Your task to perform on an android device: Open Android settings Image 0: 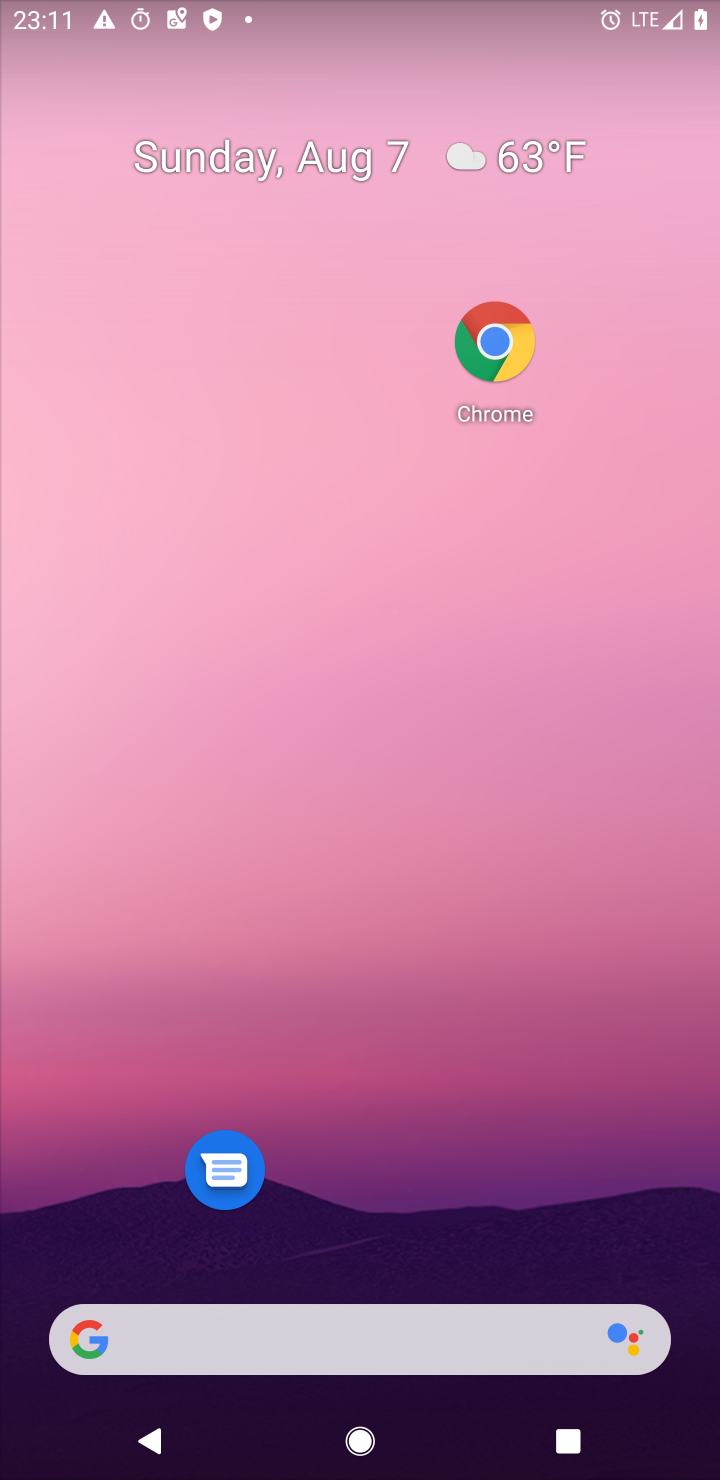
Step 0: drag from (511, 1345) to (442, 12)
Your task to perform on an android device: Open Android settings Image 1: 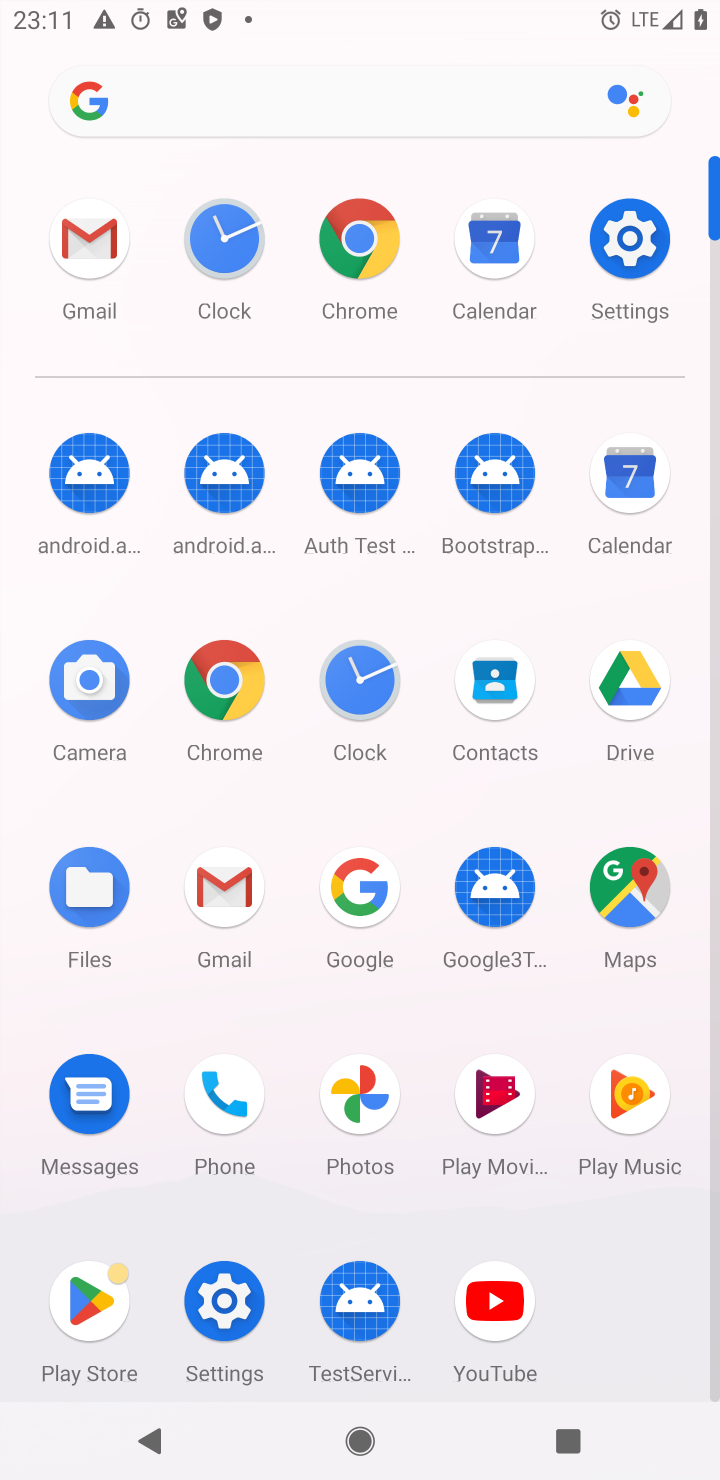
Step 1: click (640, 267)
Your task to perform on an android device: Open Android settings Image 2: 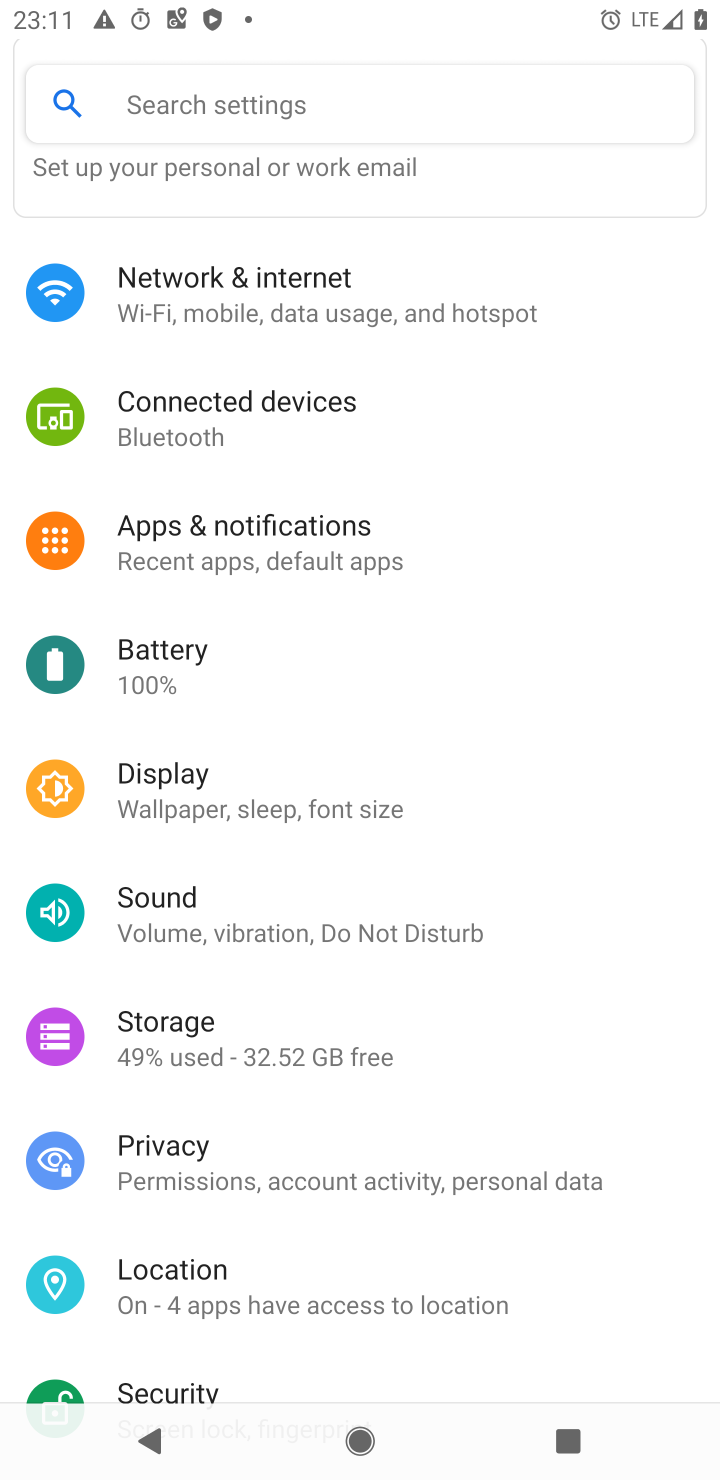
Step 2: drag from (675, 1314) to (713, 1094)
Your task to perform on an android device: Open Android settings Image 3: 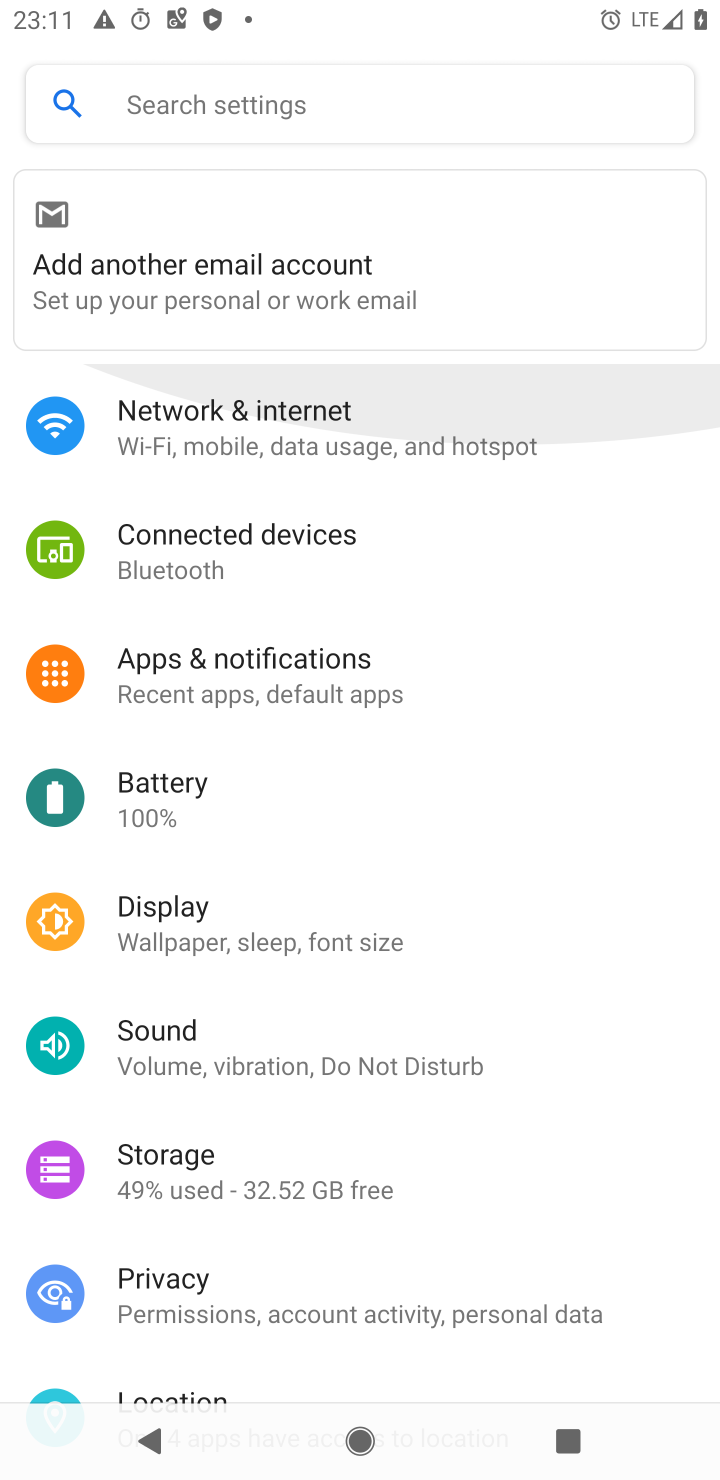
Step 3: click (386, 1347)
Your task to perform on an android device: Open Android settings Image 4: 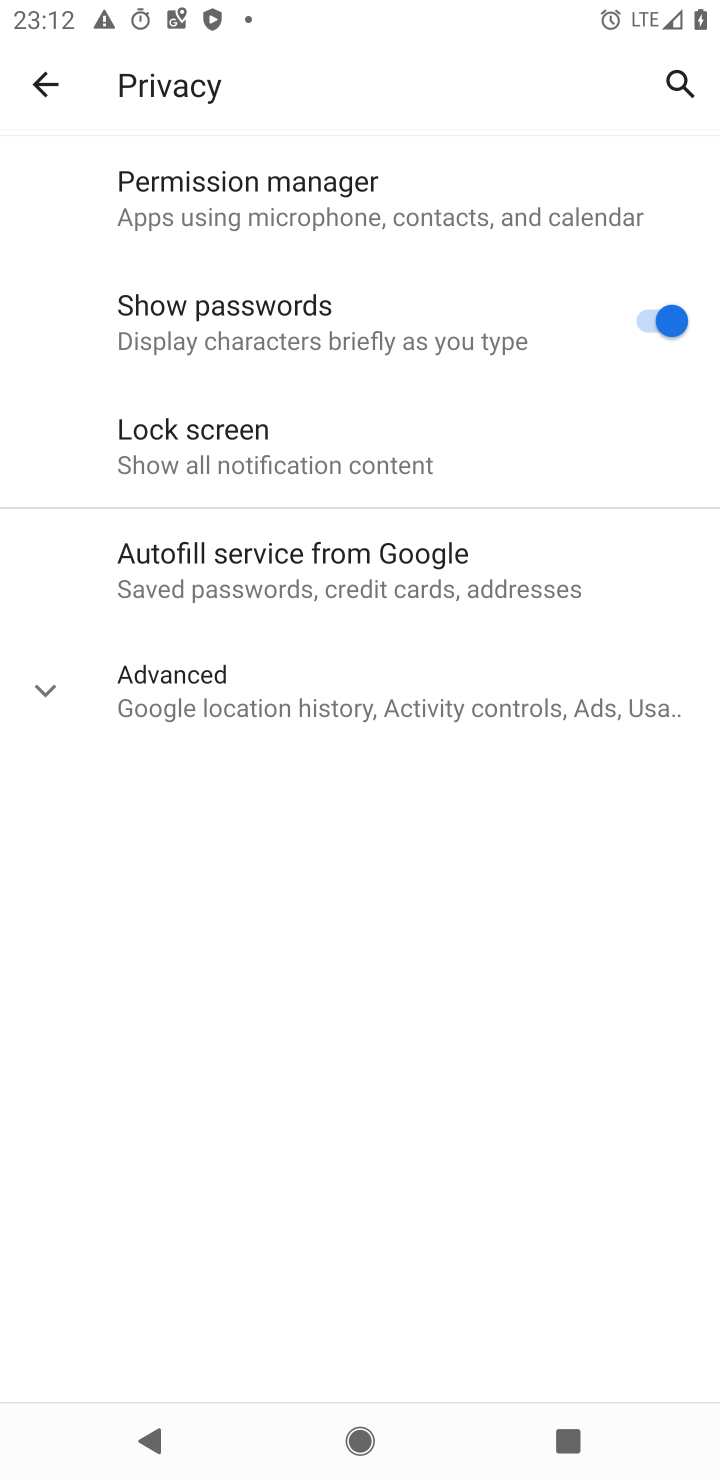
Step 4: press back button
Your task to perform on an android device: Open Android settings Image 5: 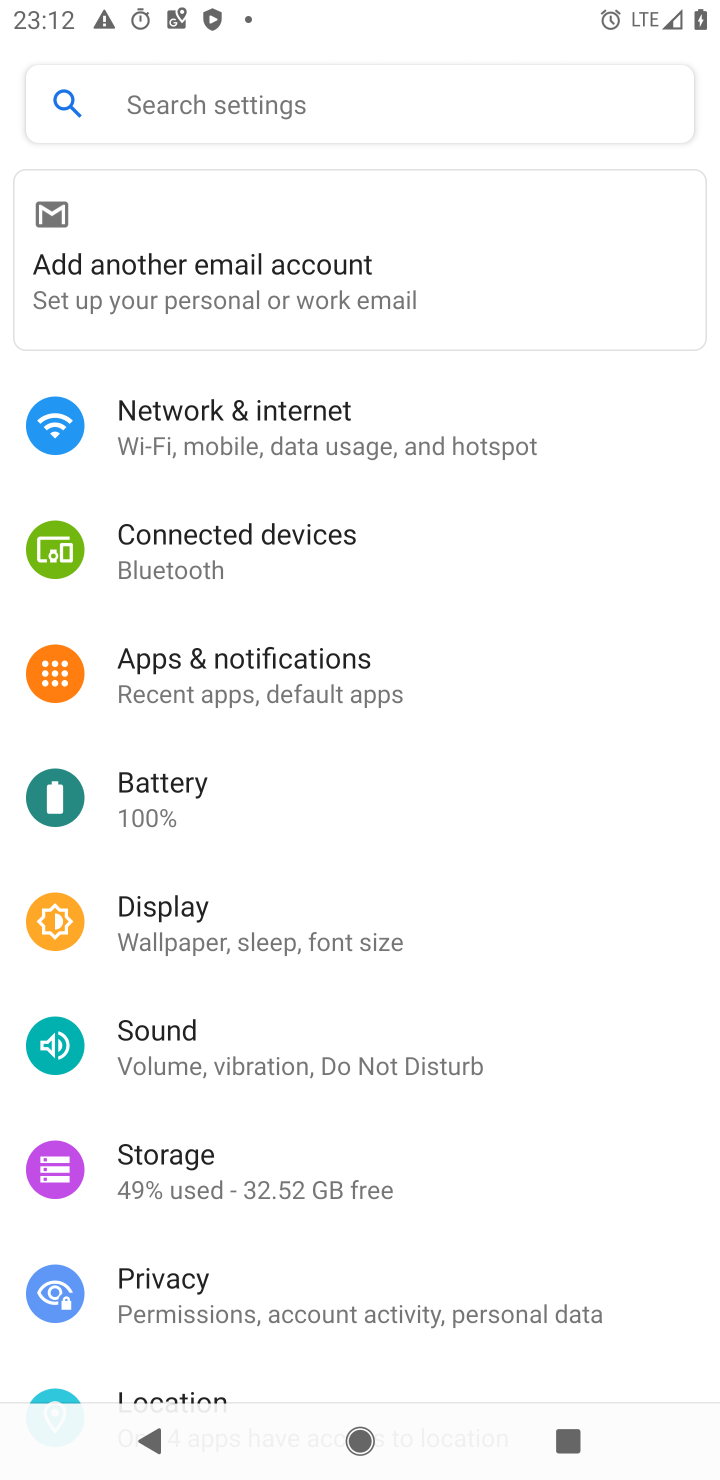
Step 5: drag from (649, 1335) to (617, 367)
Your task to perform on an android device: Open Android settings Image 6: 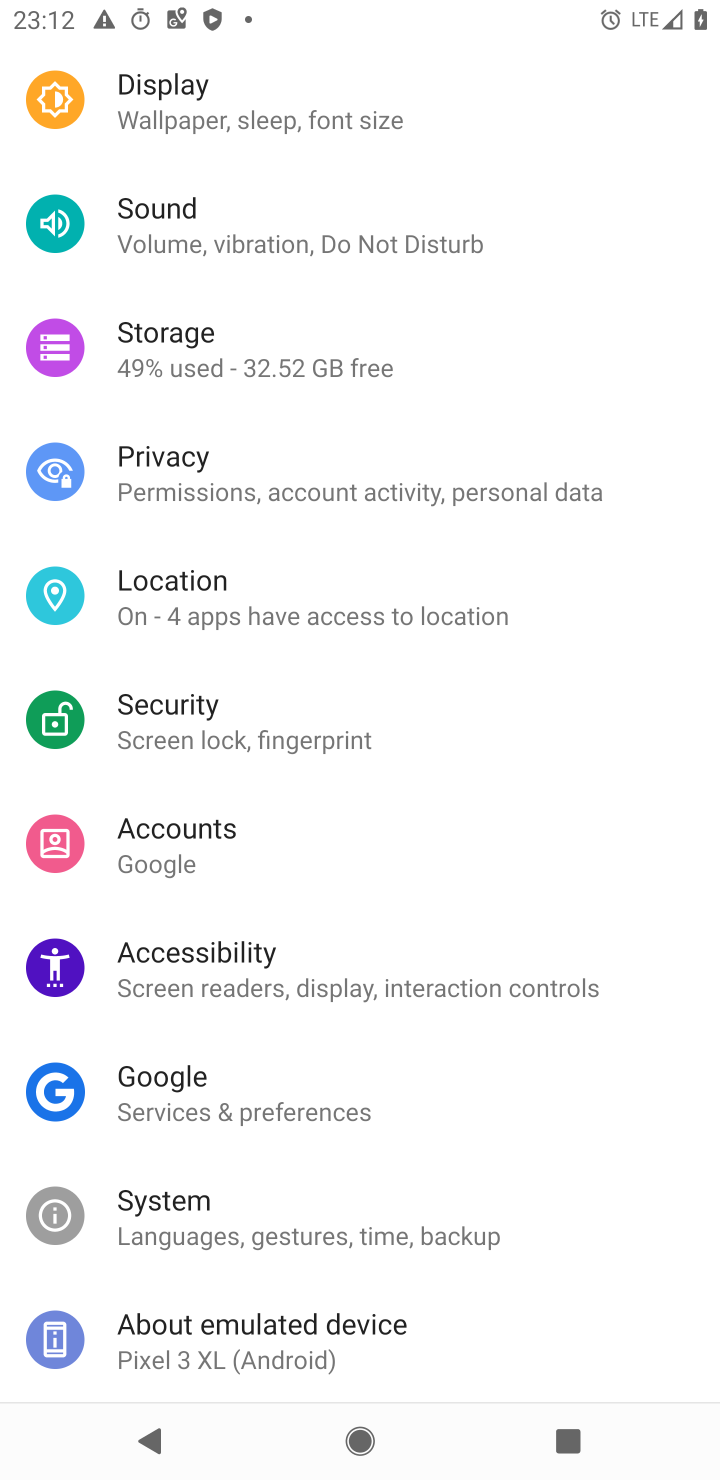
Step 6: click (426, 1341)
Your task to perform on an android device: Open Android settings Image 7: 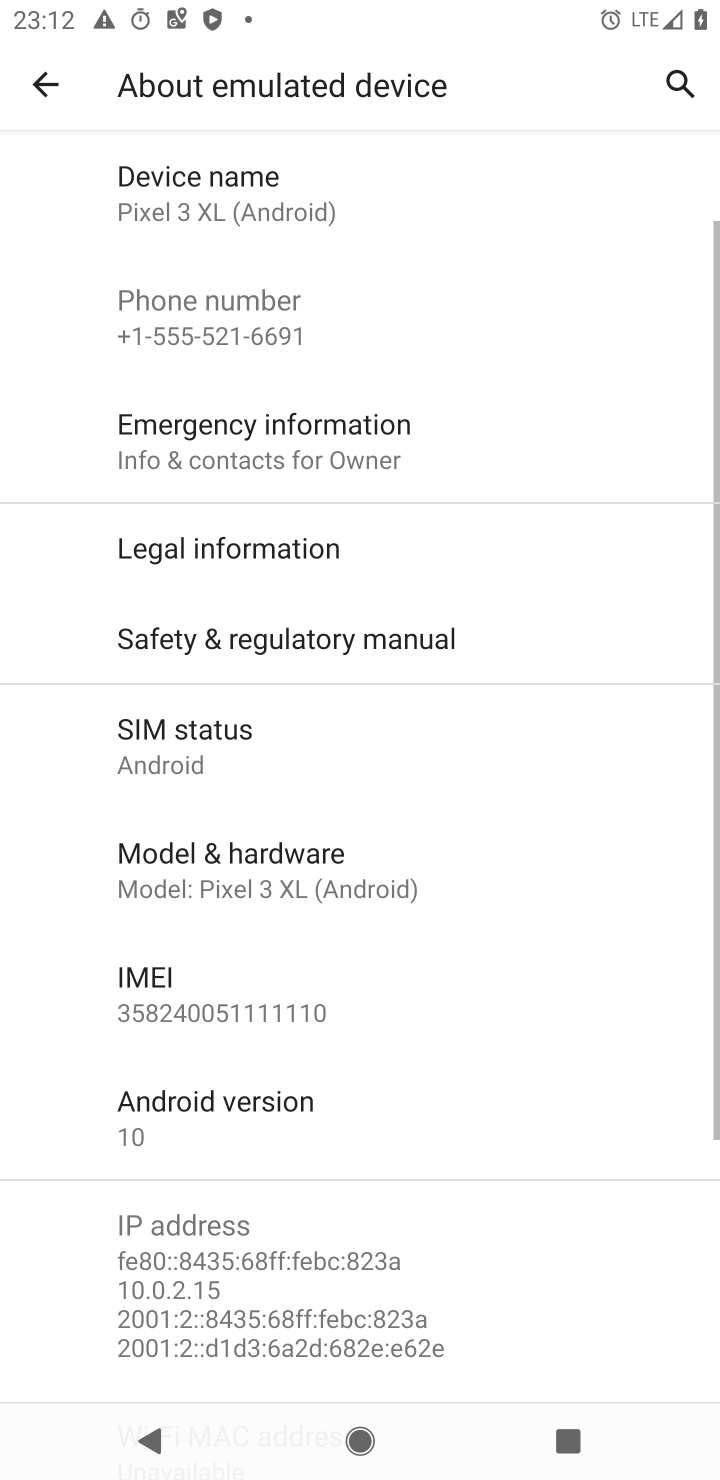
Step 7: click (252, 1113)
Your task to perform on an android device: Open Android settings Image 8: 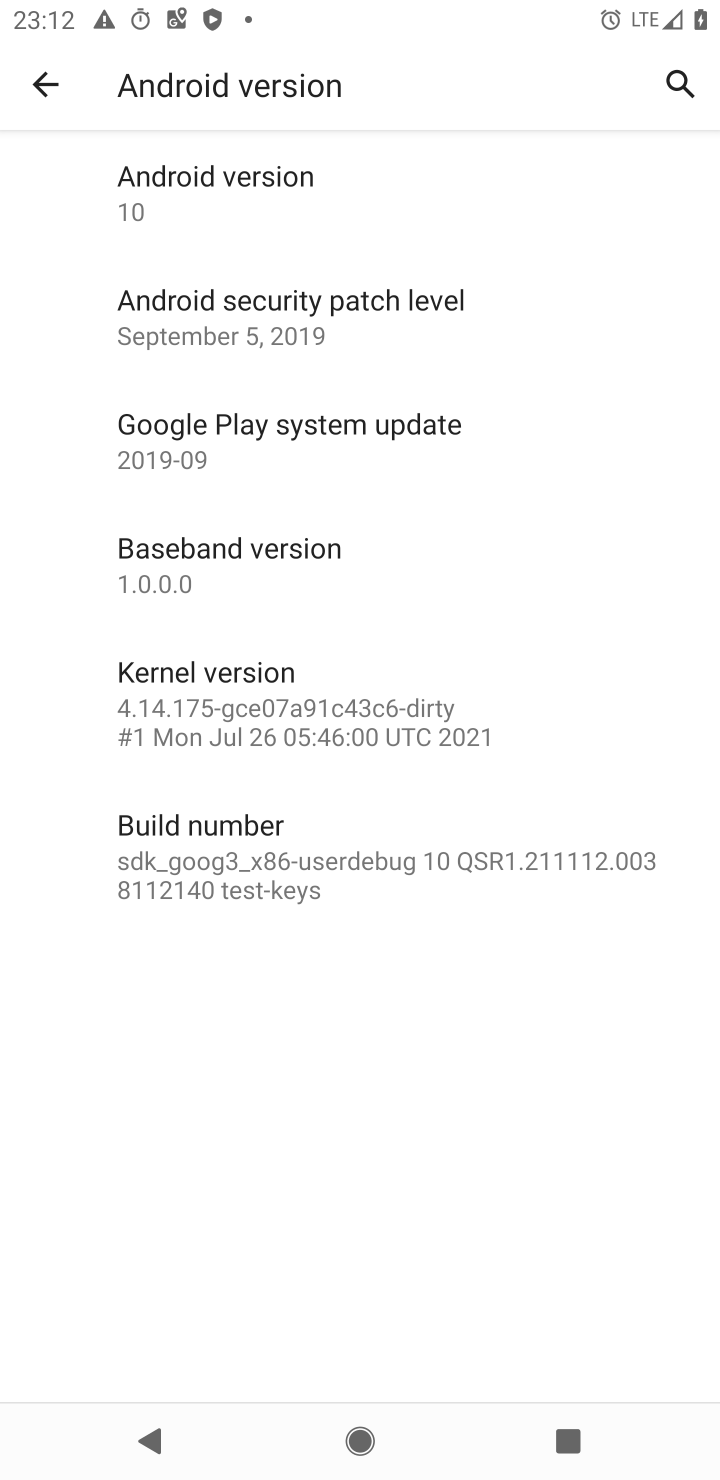
Step 8: task complete